Your task to perform on an android device: toggle data saver in the chrome app Image 0: 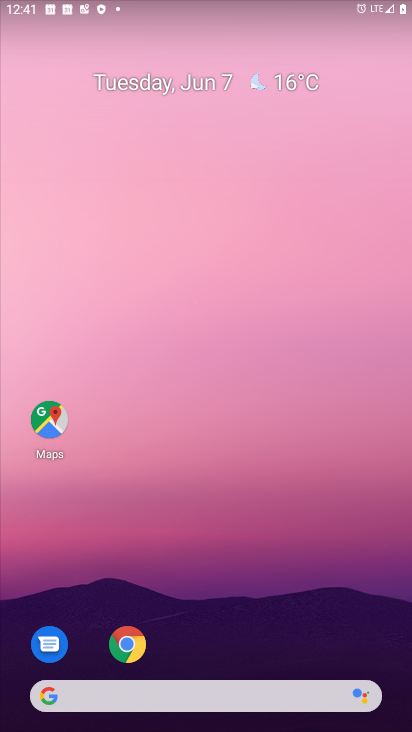
Step 0: click (133, 639)
Your task to perform on an android device: toggle data saver in the chrome app Image 1: 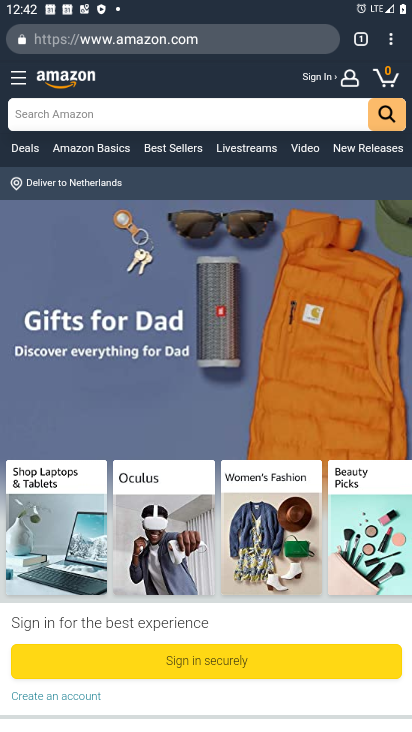
Step 1: click (398, 41)
Your task to perform on an android device: toggle data saver in the chrome app Image 2: 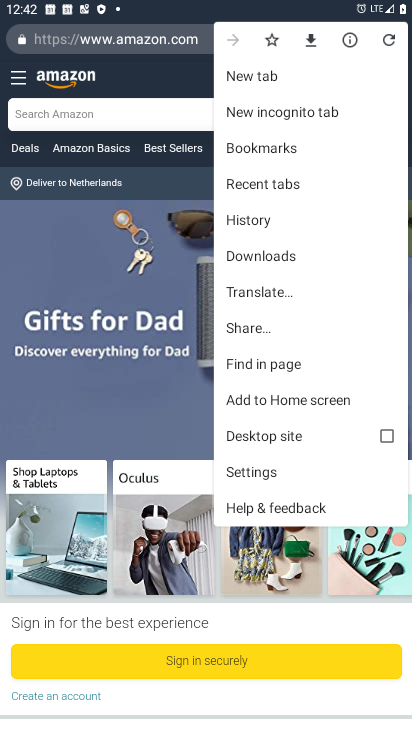
Step 2: click (268, 472)
Your task to perform on an android device: toggle data saver in the chrome app Image 3: 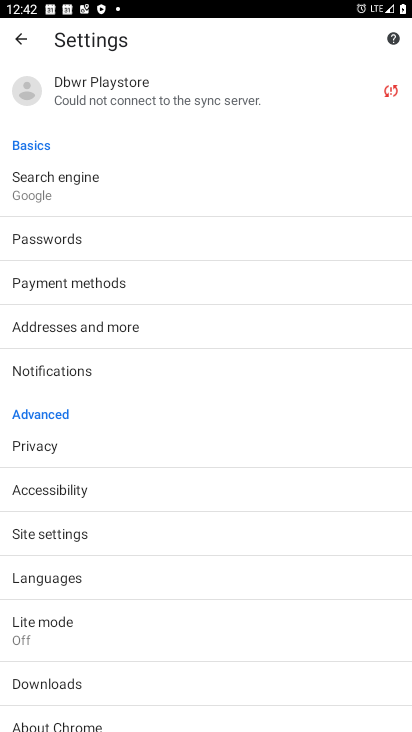
Step 3: click (46, 633)
Your task to perform on an android device: toggle data saver in the chrome app Image 4: 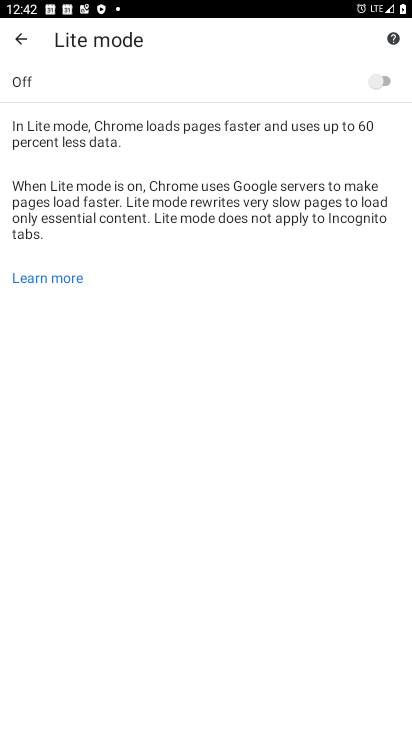
Step 4: click (374, 79)
Your task to perform on an android device: toggle data saver in the chrome app Image 5: 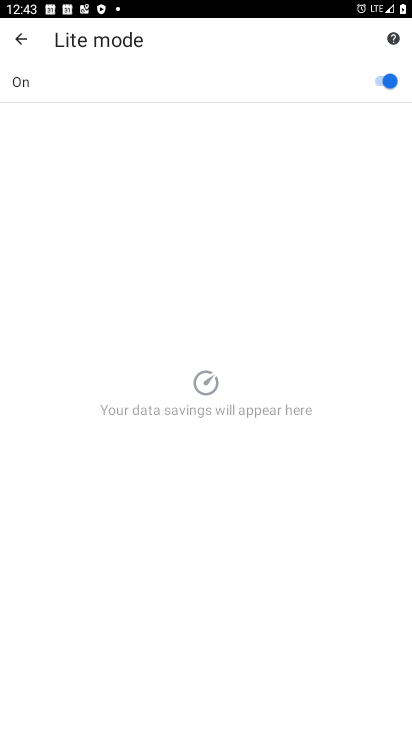
Step 5: task complete